Your task to perform on an android device: toggle airplane mode Image 0: 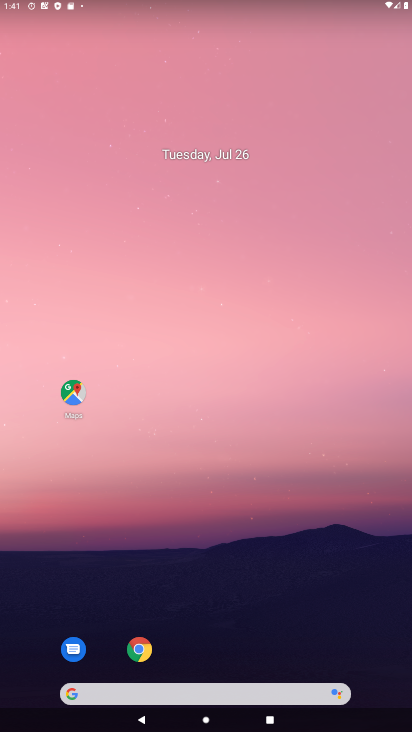
Step 0: drag from (252, 646) to (88, 53)
Your task to perform on an android device: toggle airplane mode Image 1: 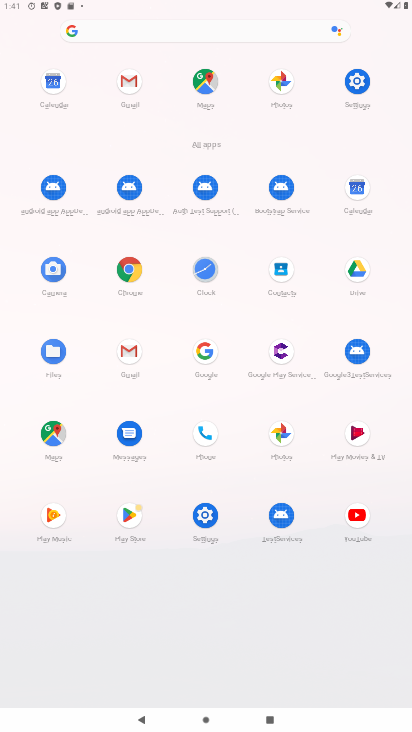
Step 1: drag from (245, 0) to (221, 351)
Your task to perform on an android device: toggle airplane mode Image 2: 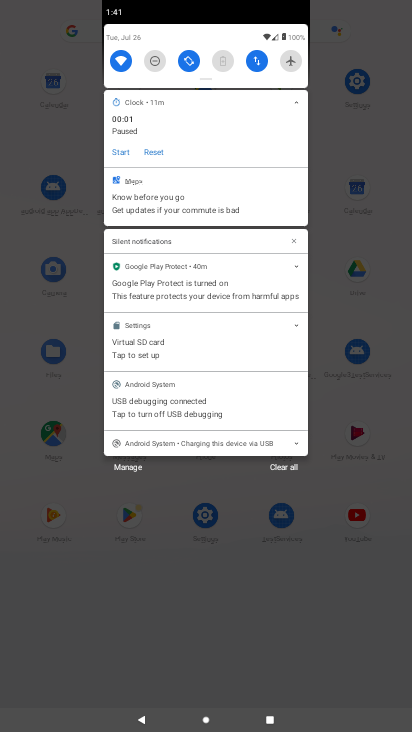
Step 2: click (293, 54)
Your task to perform on an android device: toggle airplane mode Image 3: 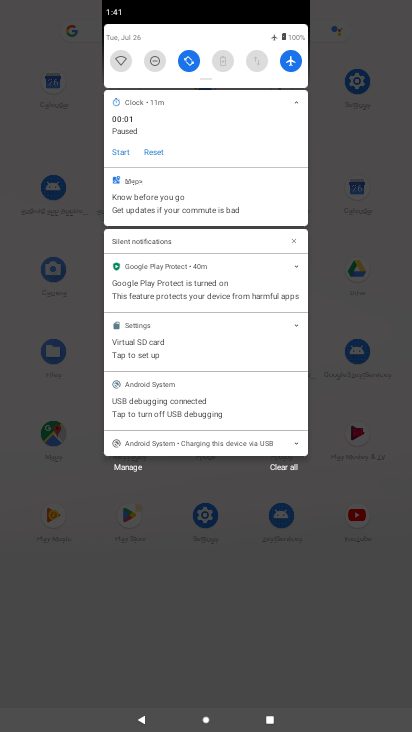
Step 3: task complete